Your task to perform on an android device: Open the map Image 0: 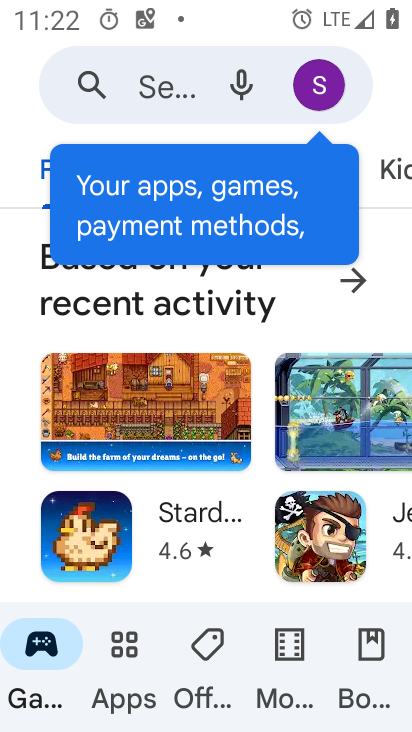
Step 0: press home button
Your task to perform on an android device: Open the map Image 1: 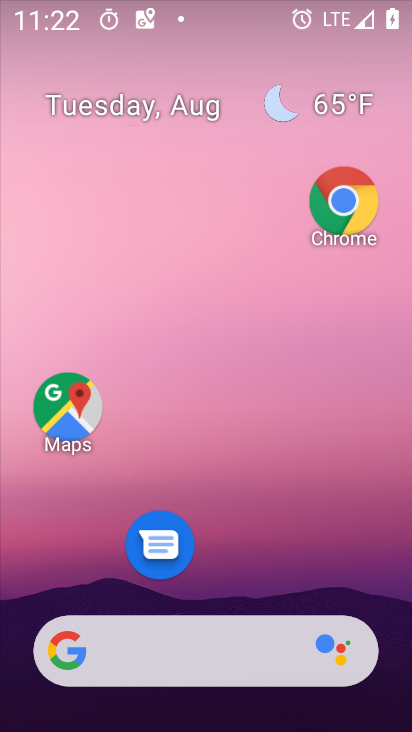
Step 1: drag from (223, 573) to (209, 8)
Your task to perform on an android device: Open the map Image 2: 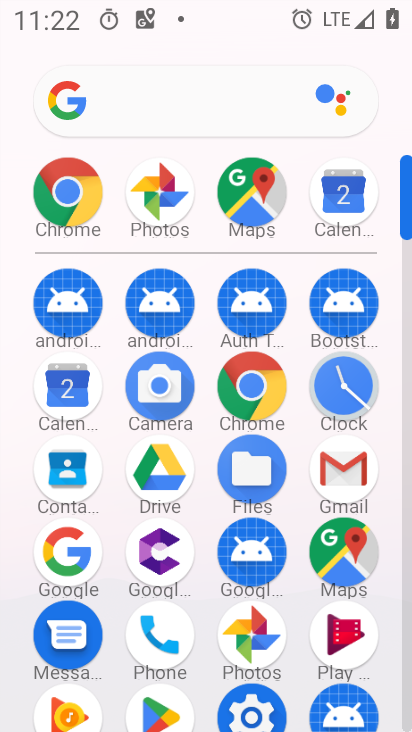
Step 2: click (252, 210)
Your task to perform on an android device: Open the map Image 3: 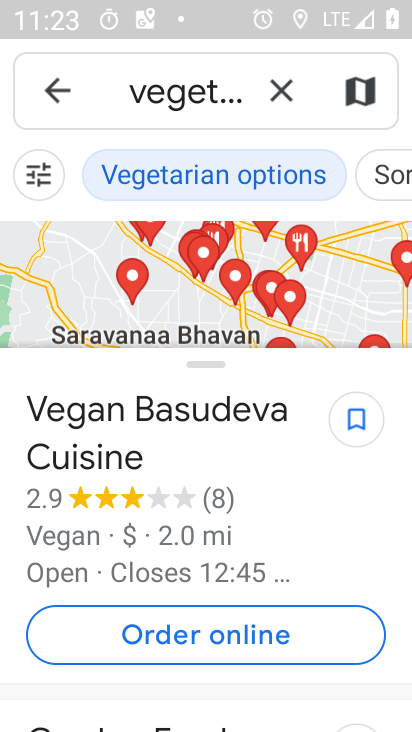
Step 3: task complete